Your task to perform on an android device: turn on showing notifications on the lock screen Image 0: 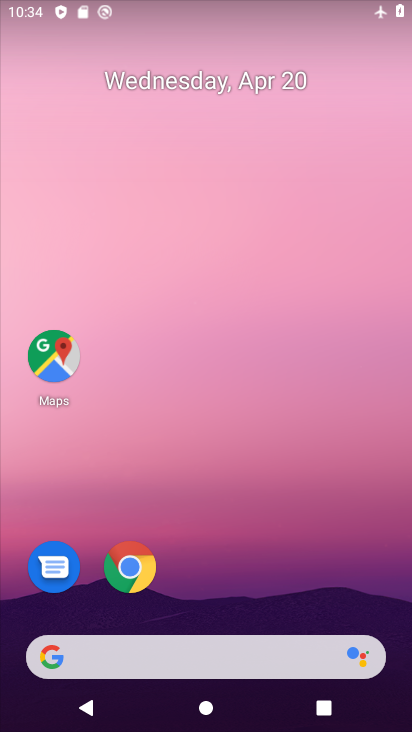
Step 0: drag from (208, 559) to (276, 284)
Your task to perform on an android device: turn on showing notifications on the lock screen Image 1: 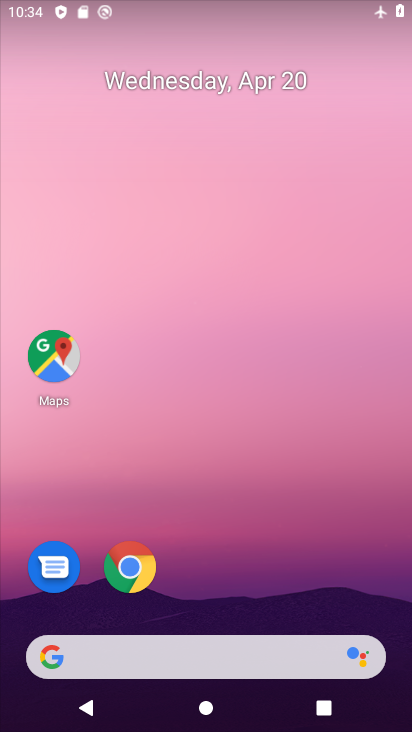
Step 1: drag from (234, 628) to (326, 193)
Your task to perform on an android device: turn on showing notifications on the lock screen Image 2: 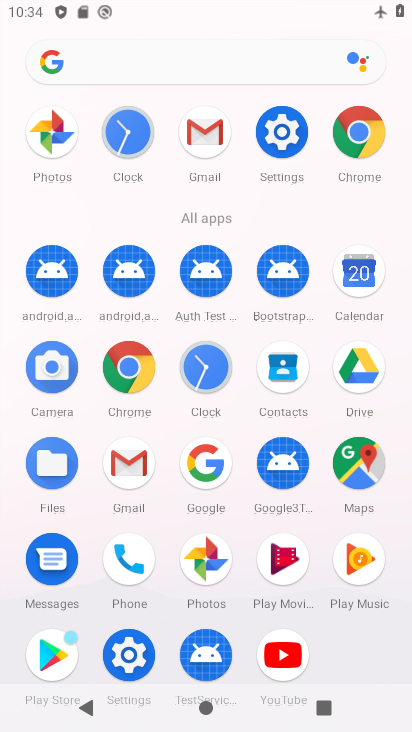
Step 2: click (292, 133)
Your task to perform on an android device: turn on showing notifications on the lock screen Image 3: 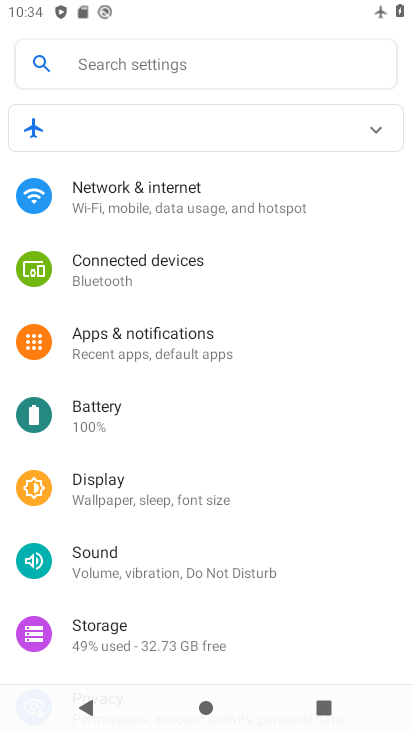
Step 3: click (168, 328)
Your task to perform on an android device: turn on showing notifications on the lock screen Image 4: 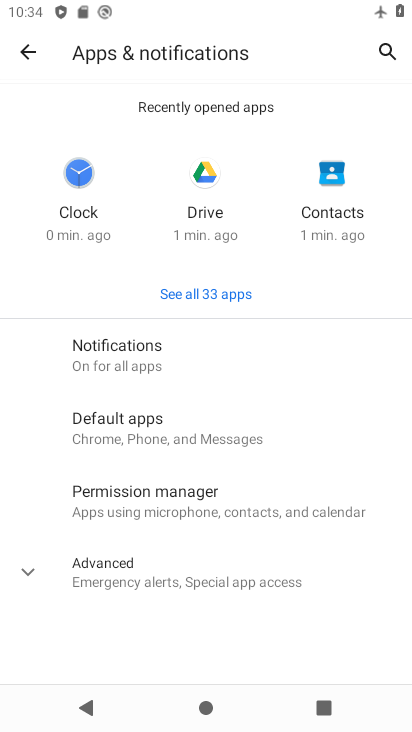
Step 4: click (169, 363)
Your task to perform on an android device: turn on showing notifications on the lock screen Image 5: 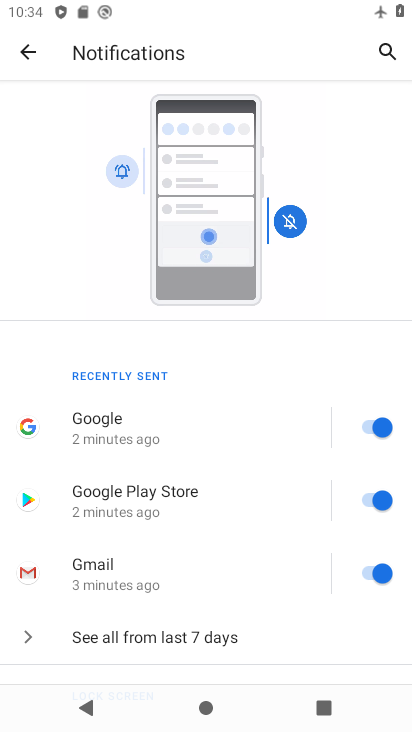
Step 5: drag from (189, 593) to (318, 110)
Your task to perform on an android device: turn on showing notifications on the lock screen Image 6: 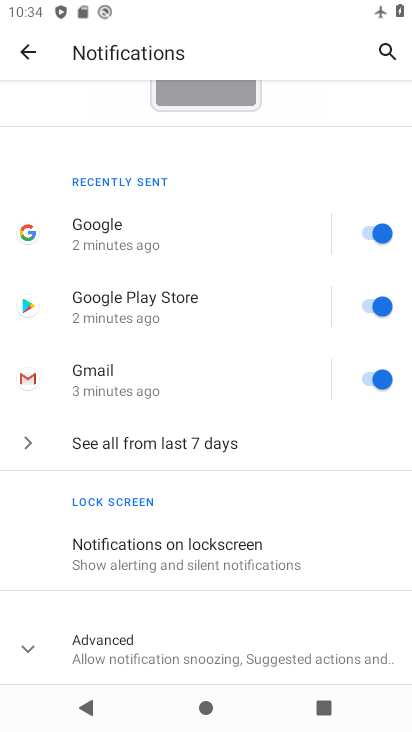
Step 6: click (206, 550)
Your task to perform on an android device: turn on showing notifications on the lock screen Image 7: 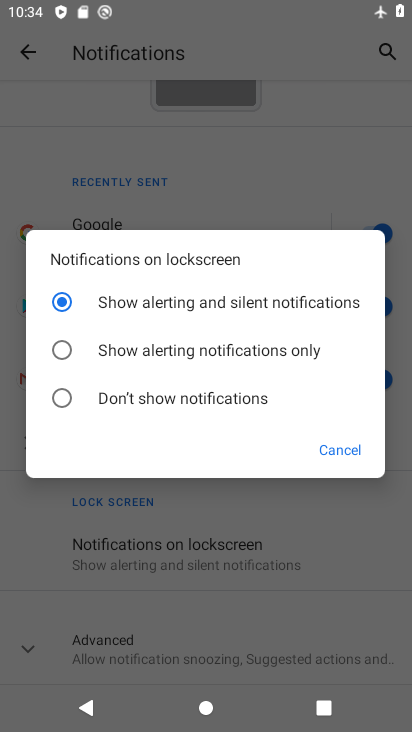
Step 7: click (181, 358)
Your task to perform on an android device: turn on showing notifications on the lock screen Image 8: 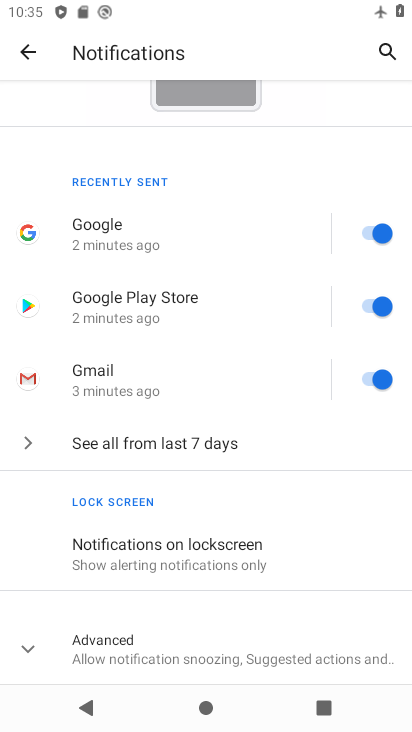
Step 8: task complete